Your task to perform on an android device: stop showing notifications on the lock screen Image 0: 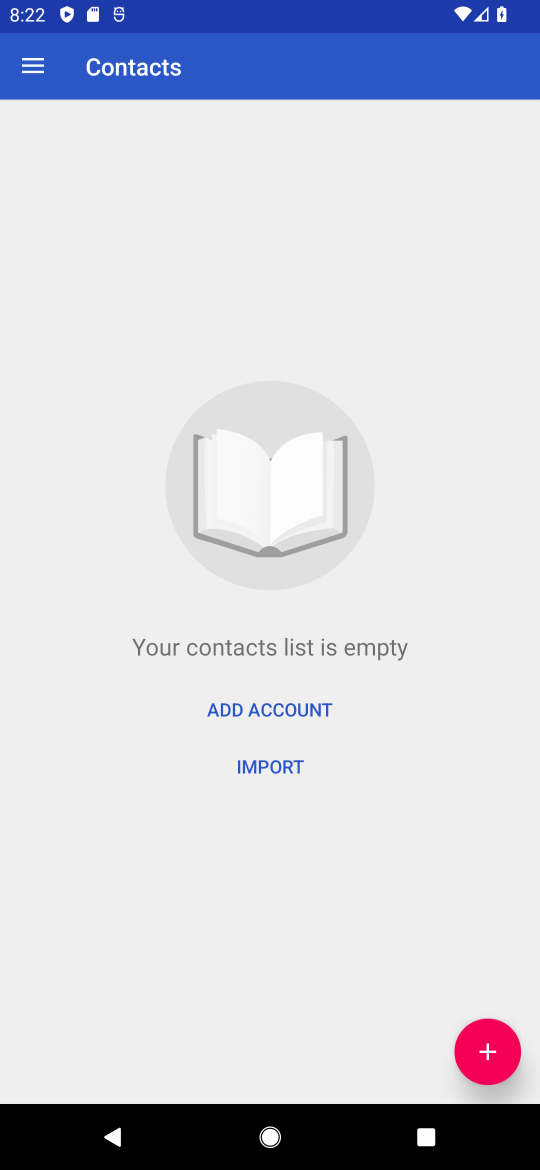
Step 0: press back button
Your task to perform on an android device: stop showing notifications on the lock screen Image 1: 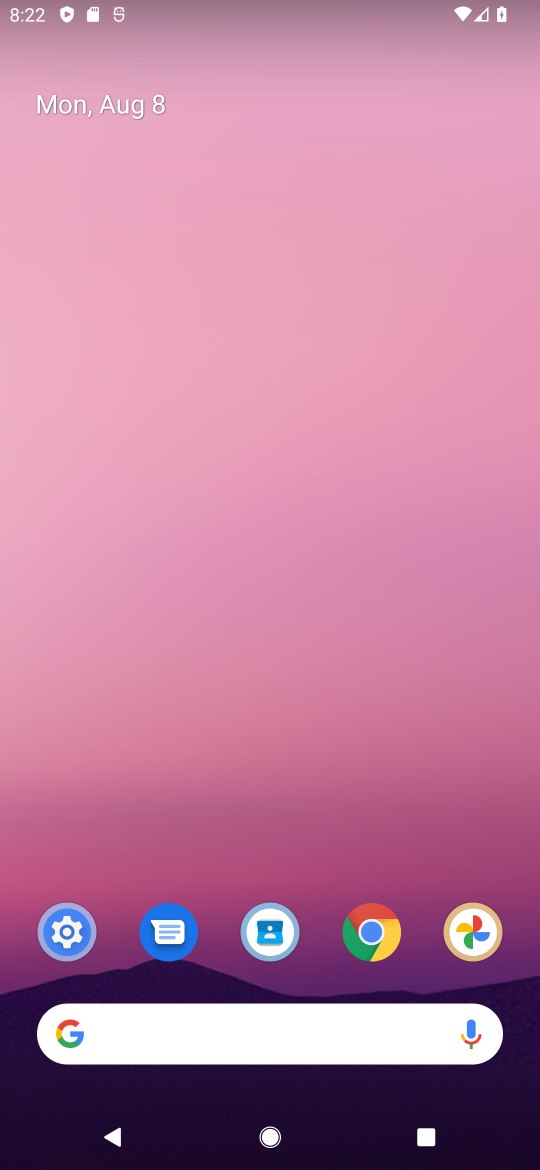
Step 1: drag from (193, 900) to (373, 168)
Your task to perform on an android device: stop showing notifications on the lock screen Image 2: 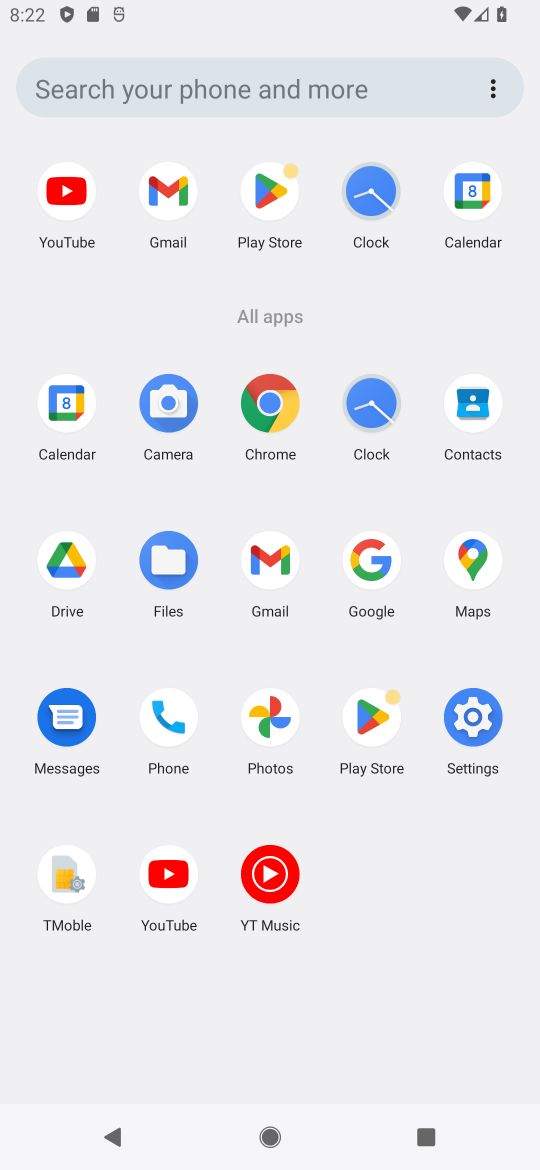
Step 2: click (480, 740)
Your task to perform on an android device: stop showing notifications on the lock screen Image 3: 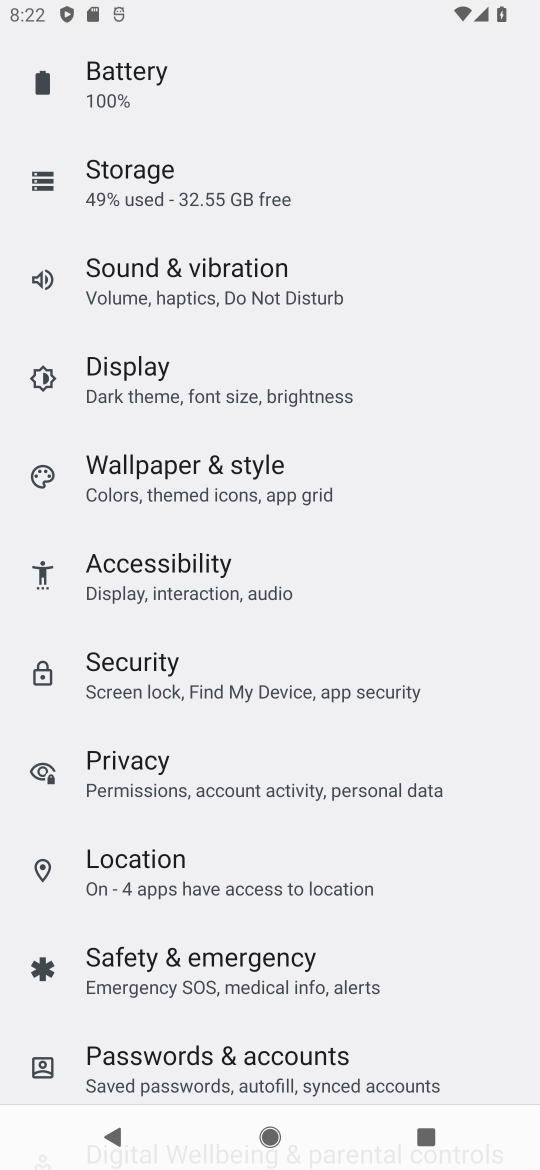
Step 3: drag from (327, 241) to (196, 1140)
Your task to perform on an android device: stop showing notifications on the lock screen Image 4: 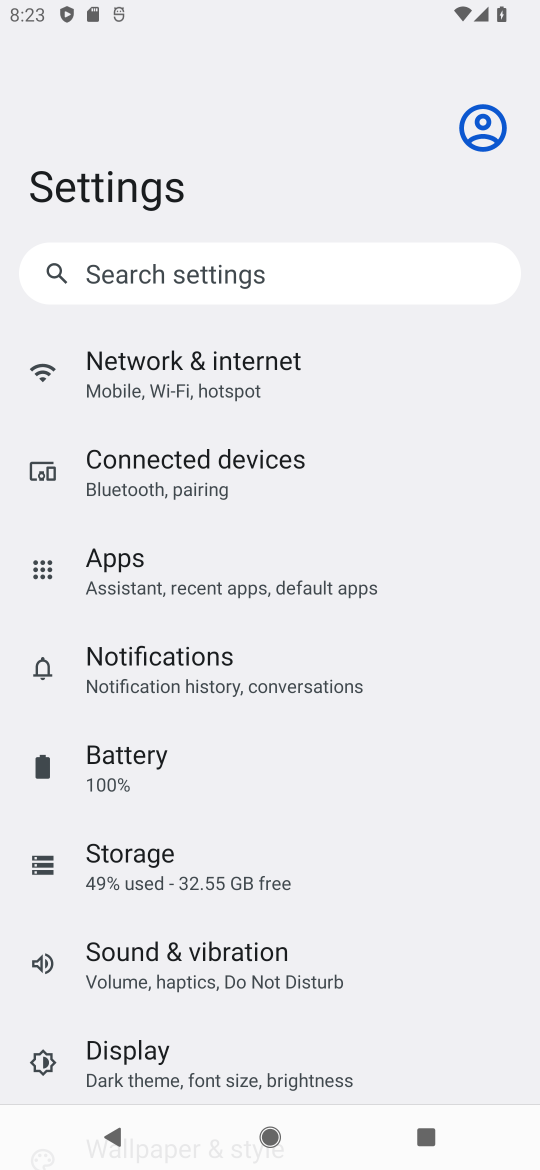
Step 4: click (204, 680)
Your task to perform on an android device: stop showing notifications on the lock screen Image 5: 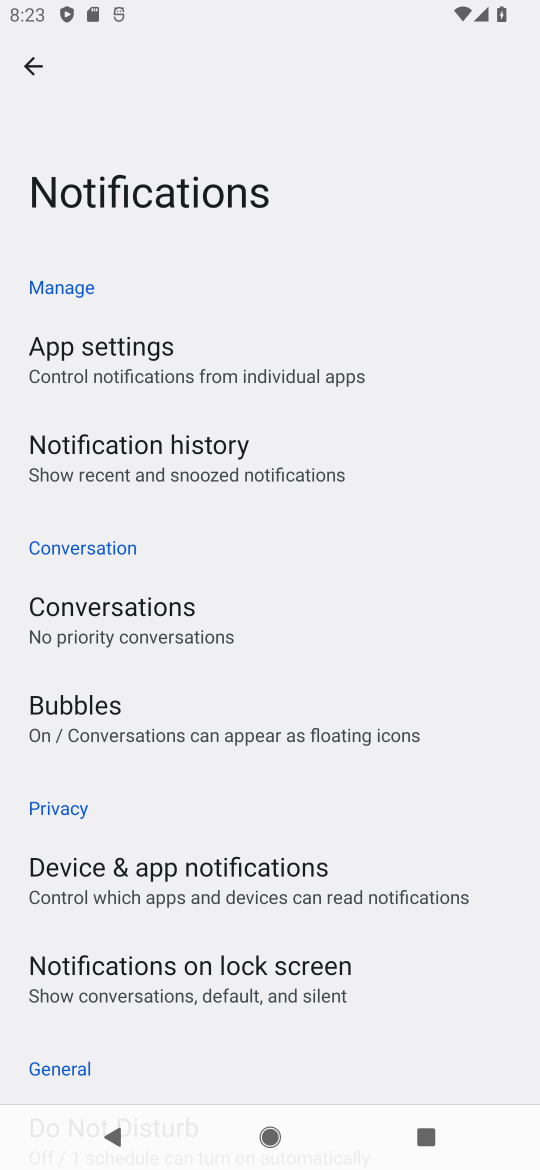
Step 5: click (219, 983)
Your task to perform on an android device: stop showing notifications on the lock screen Image 6: 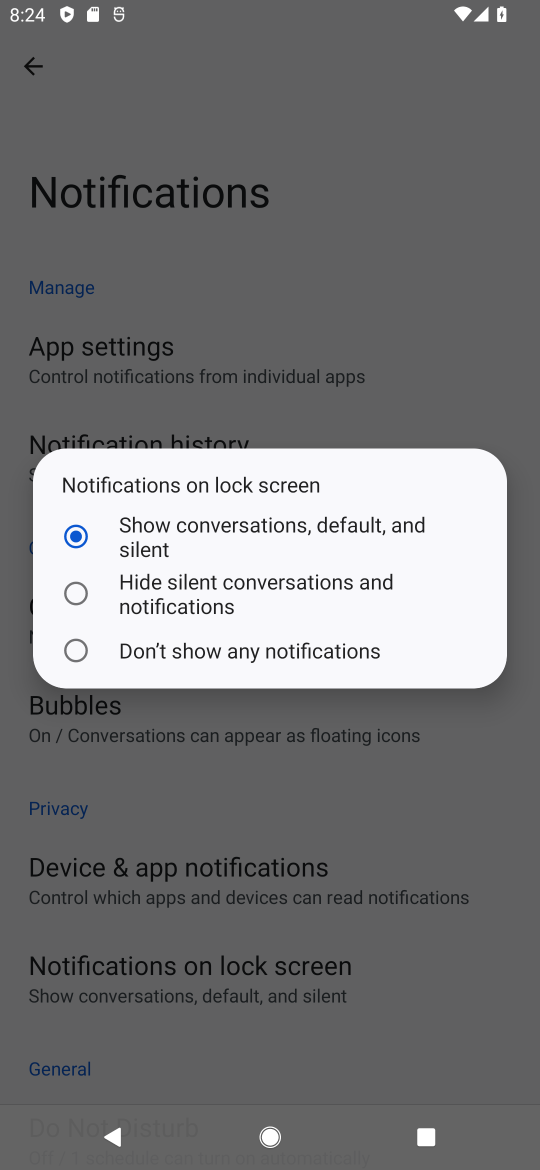
Step 6: click (93, 642)
Your task to perform on an android device: stop showing notifications on the lock screen Image 7: 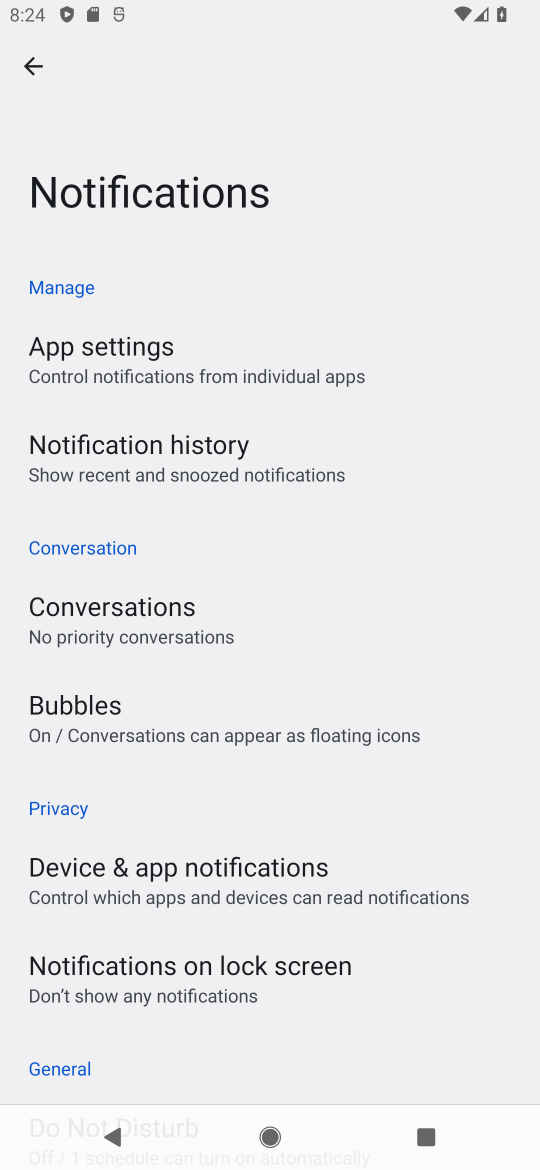
Step 7: task complete